Your task to perform on an android device: Go to ESPN.com Image 0: 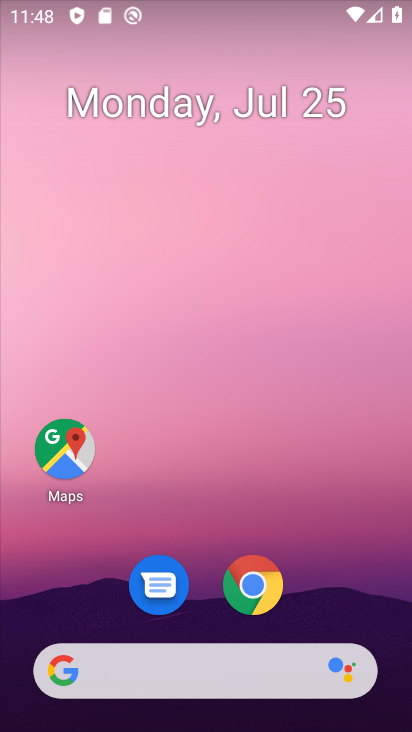
Step 0: click (271, 677)
Your task to perform on an android device: Go to ESPN.com Image 1: 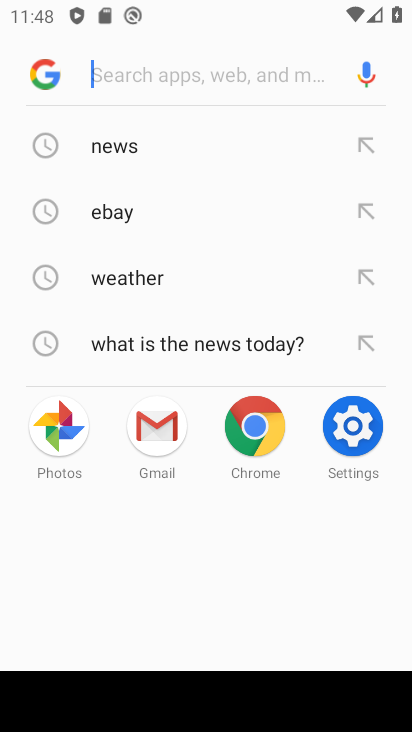
Step 1: type "espn.com"
Your task to perform on an android device: Go to ESPN.com Image 2: 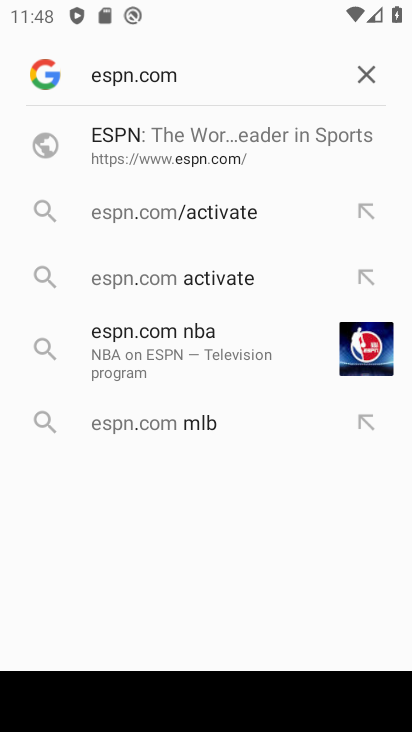
Step 2: click (109, 147)
Your task to perform on an android device: Go to ESPN.com Image 3: 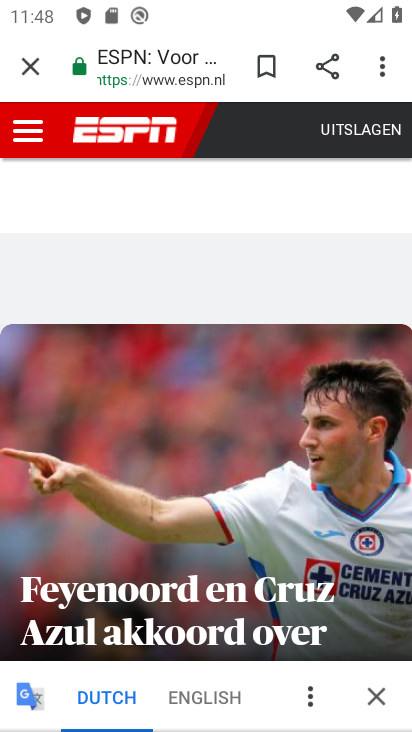
Step 3: task complete